Your task to perform on an android device: read, delete, or share a saved page in the chrome app Image 0: 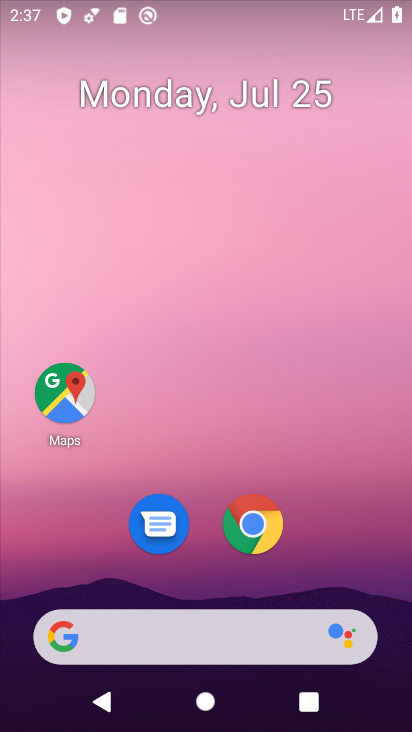
Step 0: click (272, 530)
Your task to perform on an android device: read, delete, or share a saved page in the chrome app Image 1: 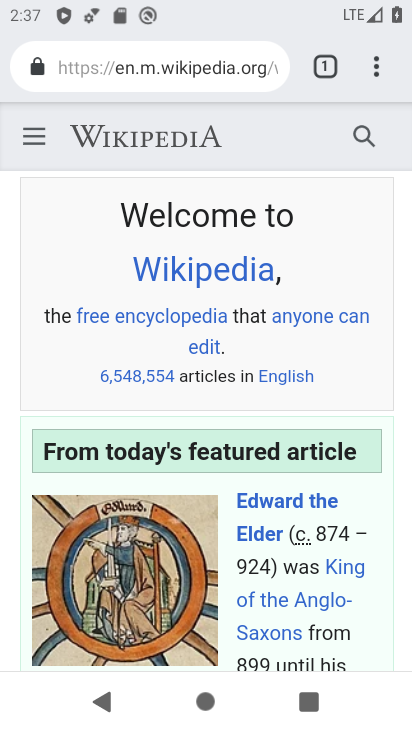
Step 1: click (376, 63)
Your task to perform on an android device: read, delete, or share a saved page in the chrome app Image 2: 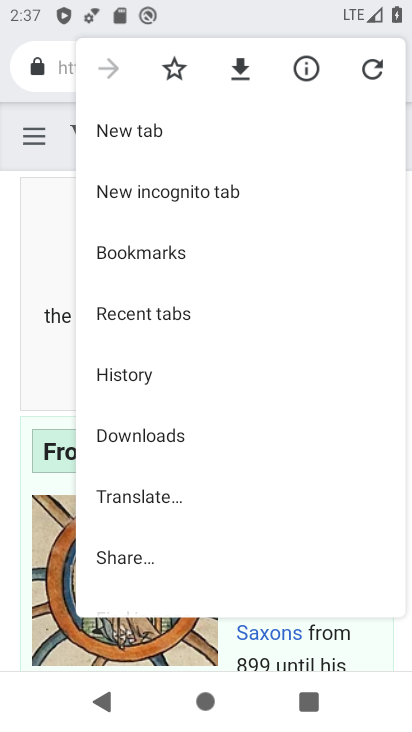
Step 2: click (160, 434)
Your task to perform on an android device: read, delete, or share a saved page in the chrome app Image 3: 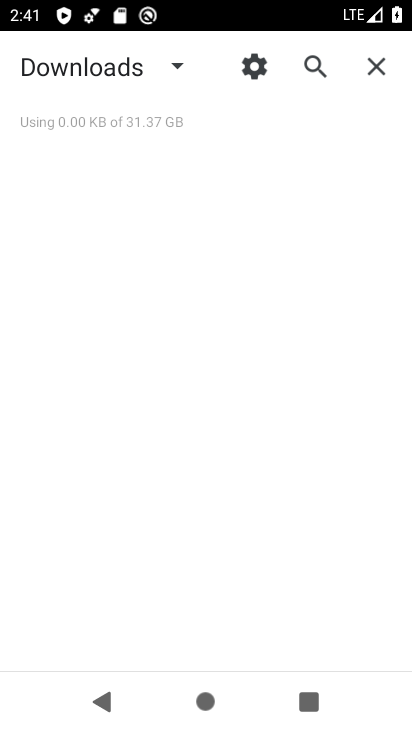
Step 3: task complete